Your task to perform on an android device: Search for sushi restaurants on Maps Image 0: 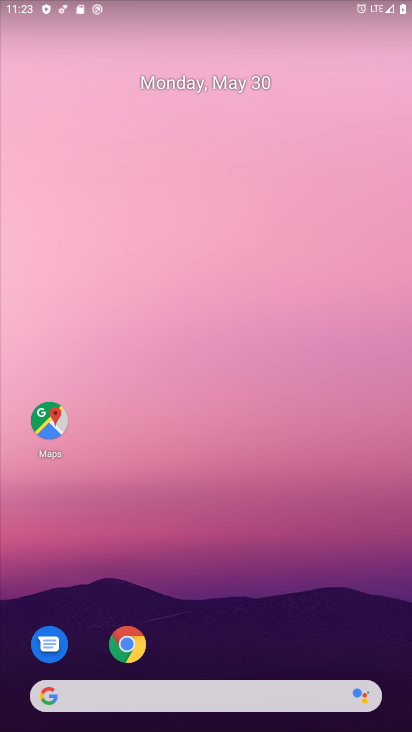
Step 0: click (142, 646)
Your task to perform on an android device: Search for sushi restaurants on Maps Image 1: 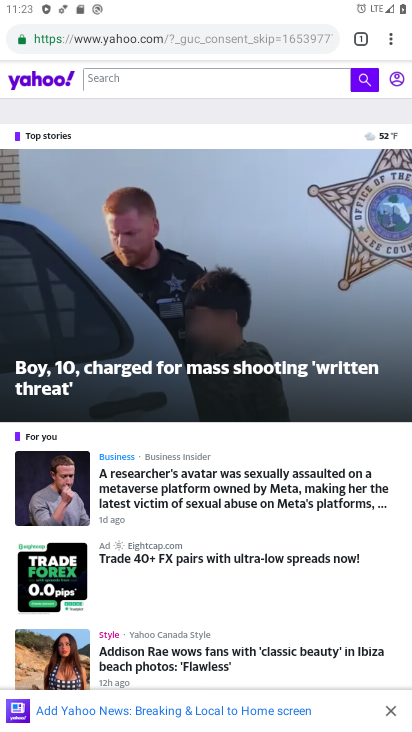
Step 1: click (166, 47)
Your task to perform on an android device: Search for sushi restaurants on Maps Image 2: 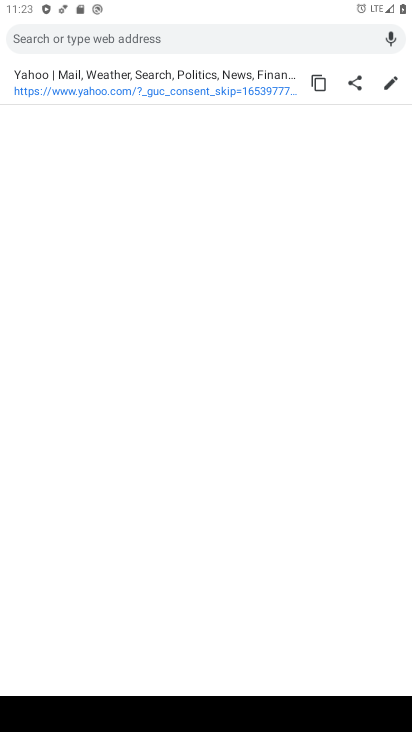
Step 2: type "sushi restaurants "
Your task to perform on an android device: Search for sushi restaurants on Maps Image 3: 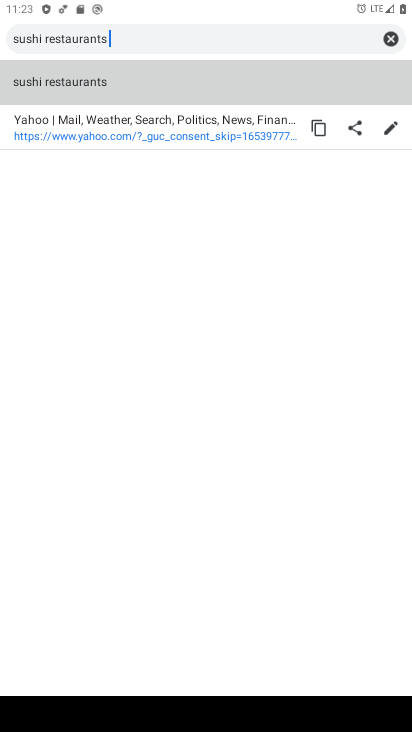
Step 3: type ""
Your task to perform on an android device: Search for sushi restaurants on Maps Image 4: 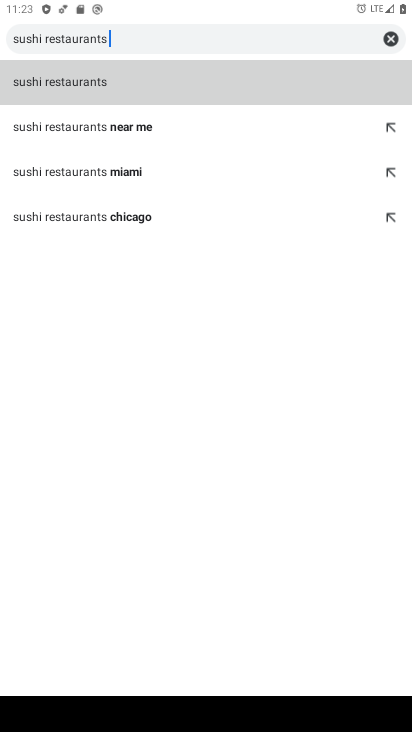
Step 4: click (214, 76)
Your task to perform on an android device: Search for sushi restaurants on Maps Image 5: 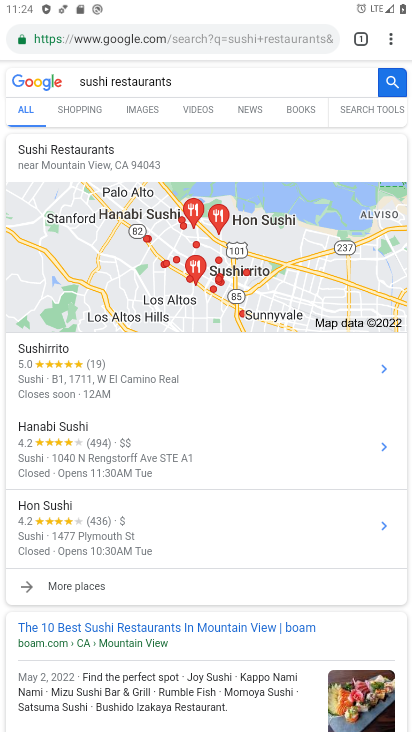
Step 5: task complete